Your task to perform on an android device: turn on data saver in the chrome app Image 0: 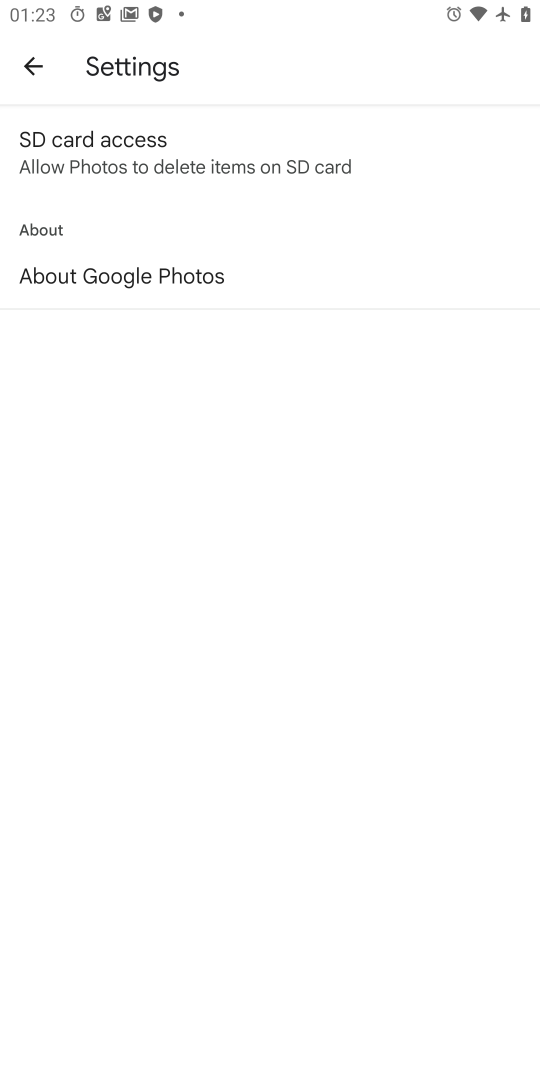
Step 0: press home button
Your task to perform on an android device: turn on data saver in the chrome app Image 1: 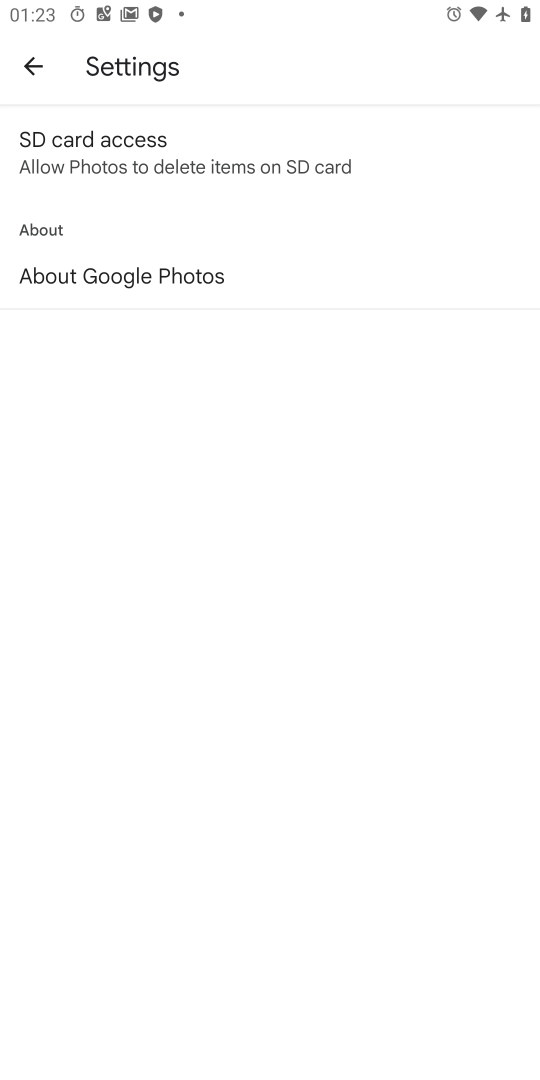
Step 1: press home button
Your task to perform on an android device: turn on data saver in the chrome app Image 2: 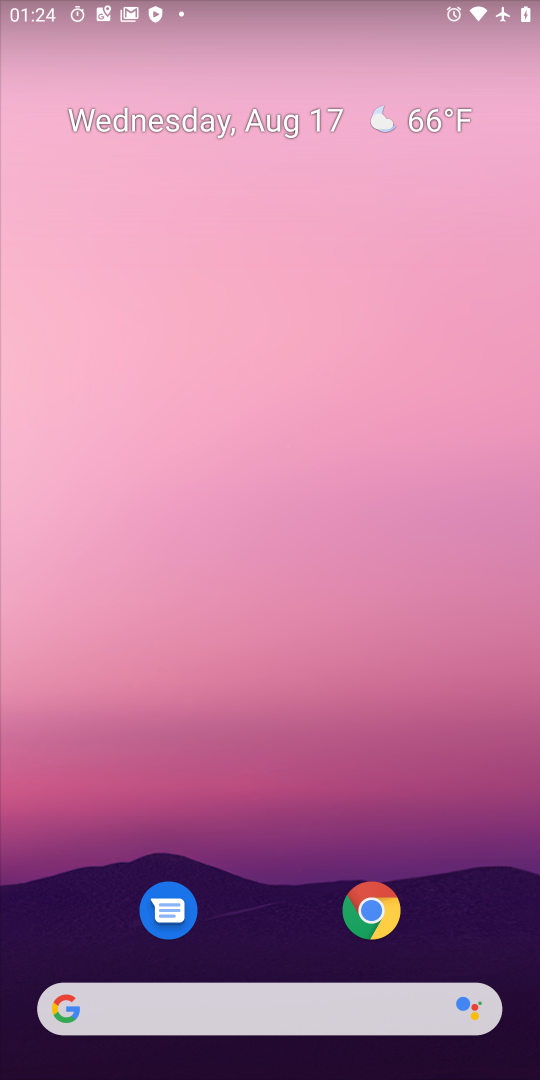
Step 2: drag from (356, 868) to (376, 116)
Your task to perform on an android device: turn on data saver in the chrome app Image 3: 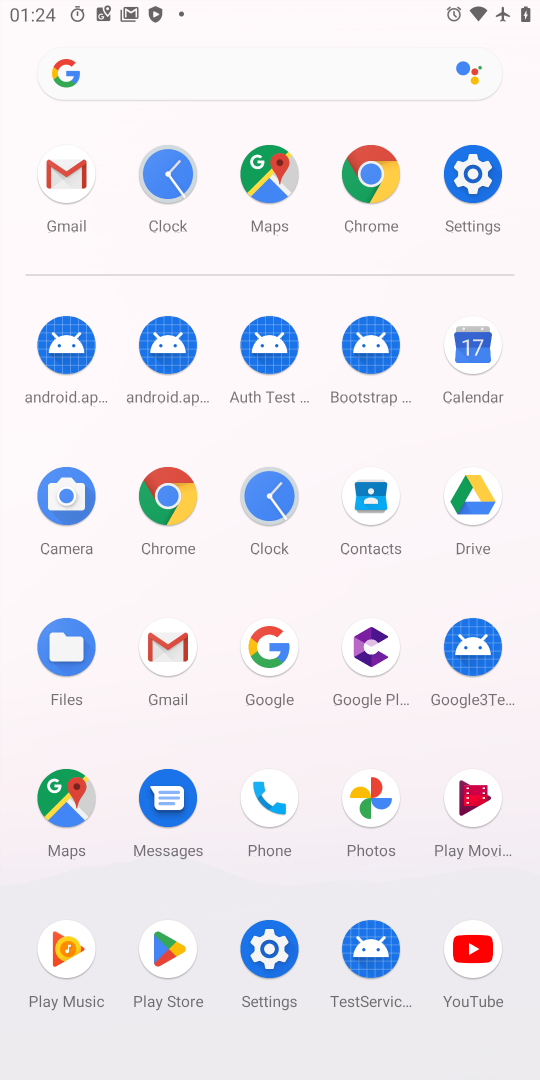
Step 3: click (180, 488)
Your task to perform on an android device: turn on data saver in the chrome app Image 4: 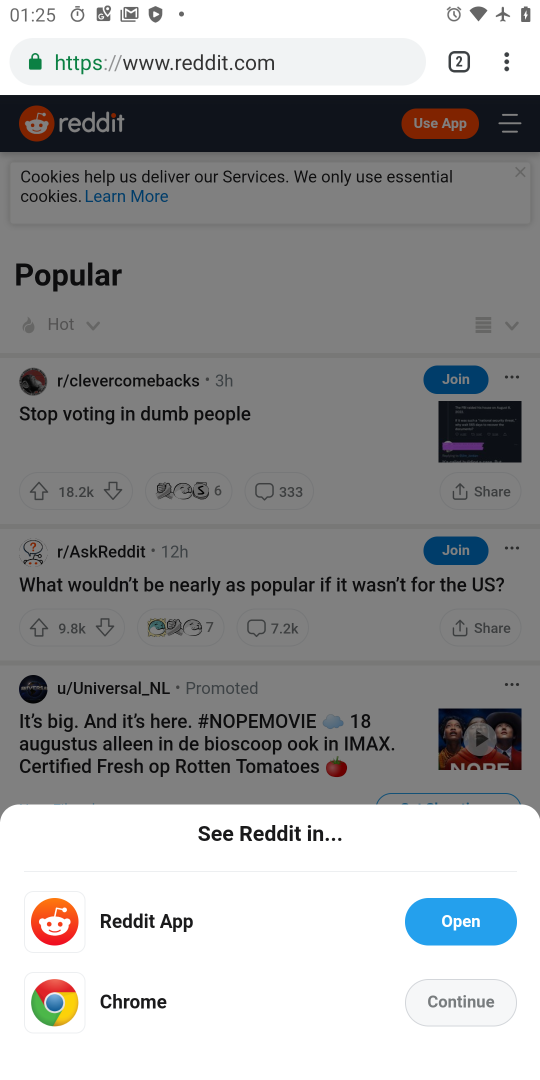
Step 4: drag from (513, 43) to (293, 820)
Your task to perform on an android device: turn on data saver in the chrome app Image 5: 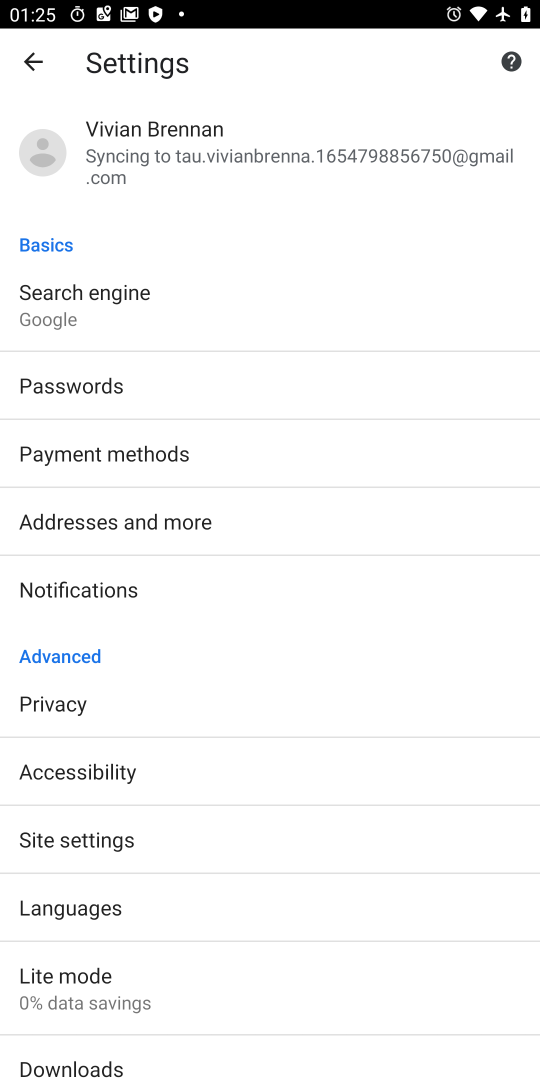
Step 5: drag from (189, 944) to (281, 354)
Your task to perform on an android device: turn on data saver in the chrome app Image 6: 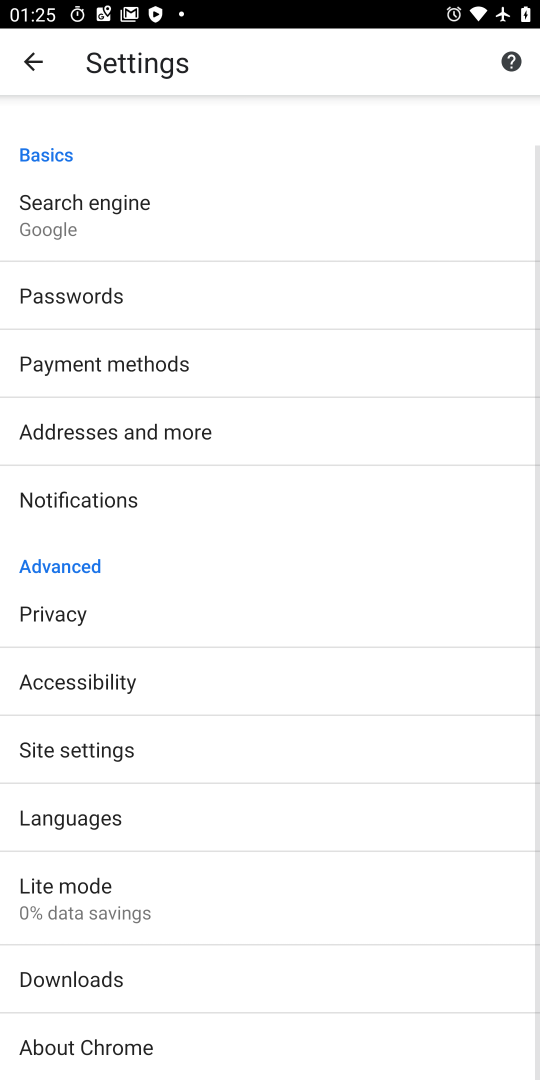
Step 6: click (70, 905)
Your task to perform on an android device: turn on data saver in the chrome app Image 7: 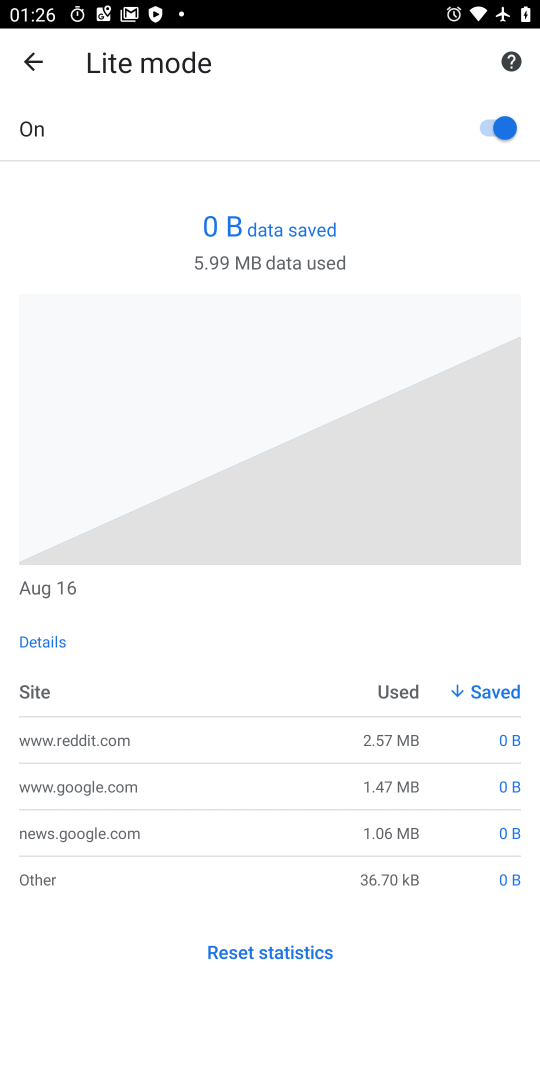
Step 7: task complete